Your task to perform on an android device: turn off sleep mode Image 0: 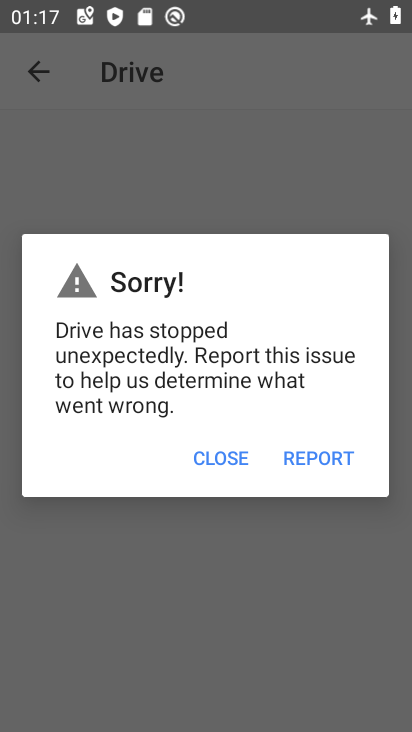
Step 0: click (213, 455)
Your task to perform on an android device: turn off sleep mode Image 1: 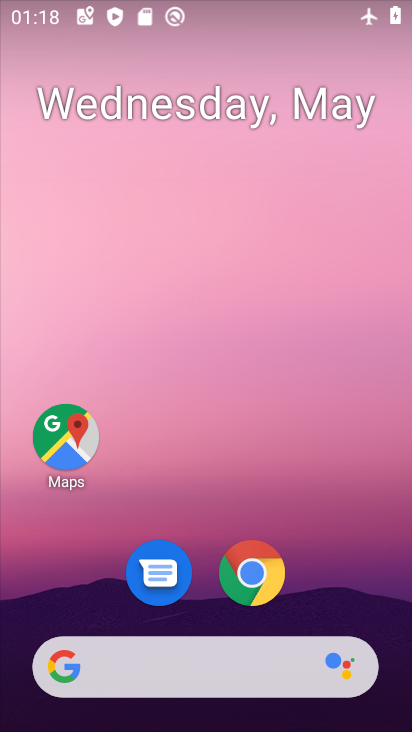
Step 1: drag from (307, 546) to (304, 249)
Your task to perform on an android device: turn off sleep mode Image 2: 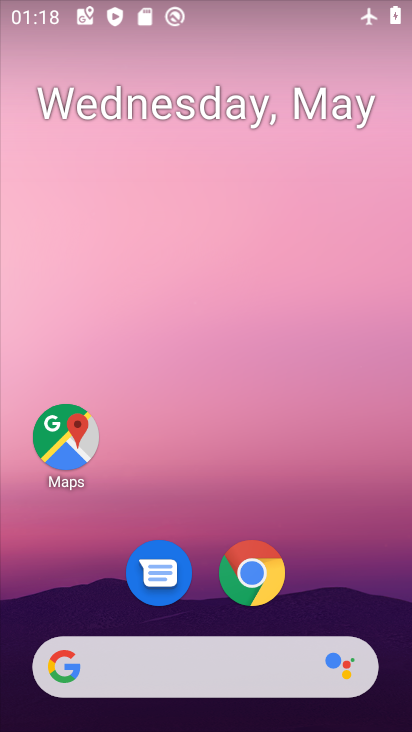
Step 2: drag from (337, 501) to (334, 207)
Your task to perform on an android device: turn off sleep mode Image 3: 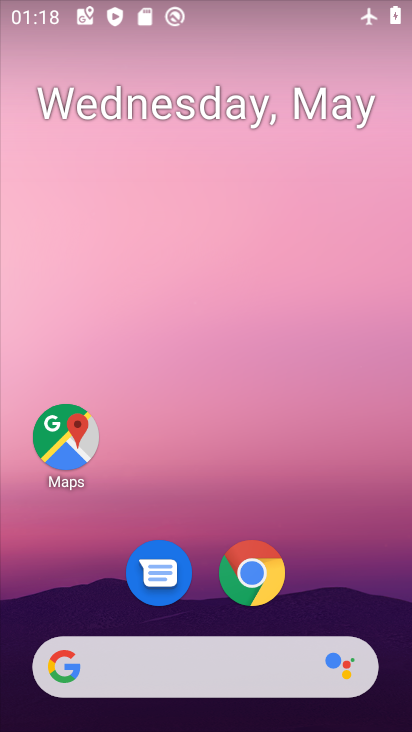
Step 3: drag from (274, 577) to (245, 128)
Your task to perform on an android device: turn off sleep mode Image 4: 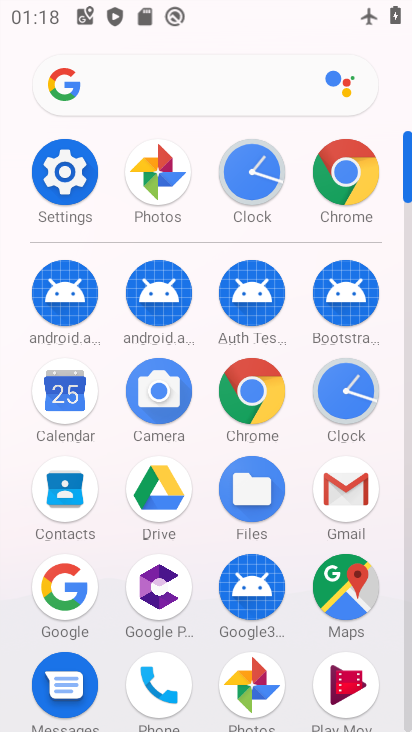
Step 4: click (80, 171)
Your task to perform on an android device: turn off sleep mode Image 5: 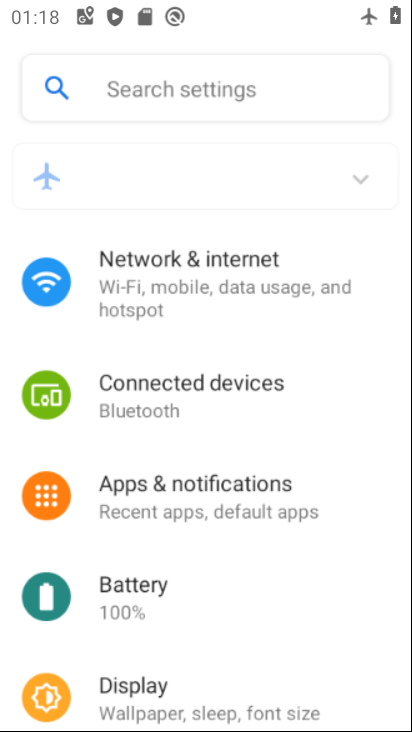
Step 5: task complete